Your task to perform on an android device: move an email to a new category in the gmail app Image 0: 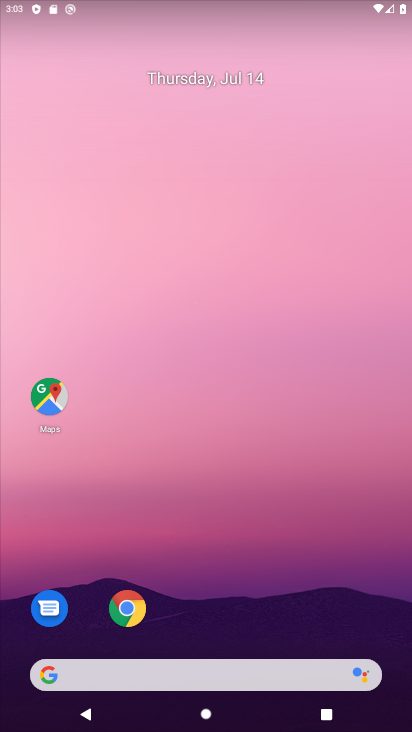
Step 0: drag from (211, 640) to (189, 94)
Your task to perform on an android device: move an email to a new category in the gmail app Image 1: 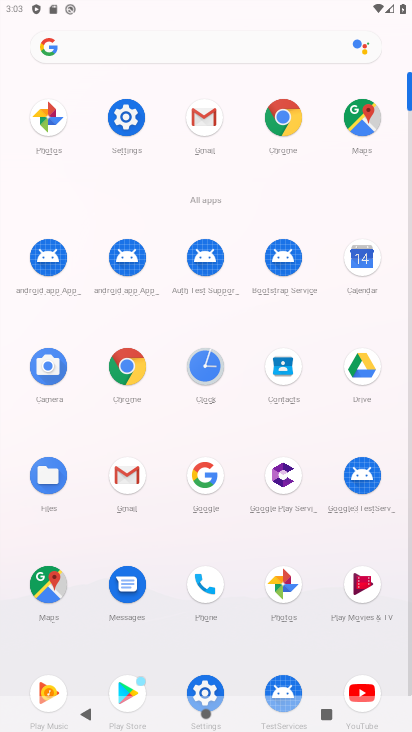
Step 1: click (125, 468)
Your task to perform on an android device: move an email to a new category in the gmail app Image 2: 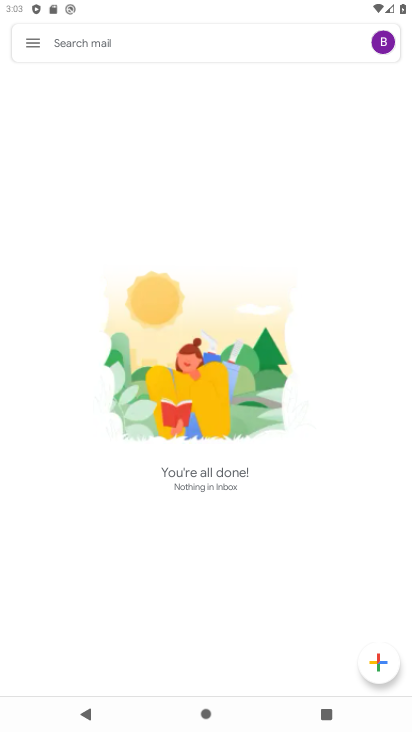
Step 2: task complete